Your task to perform on an android device: Play the last video I watched on Youtube Image 0: 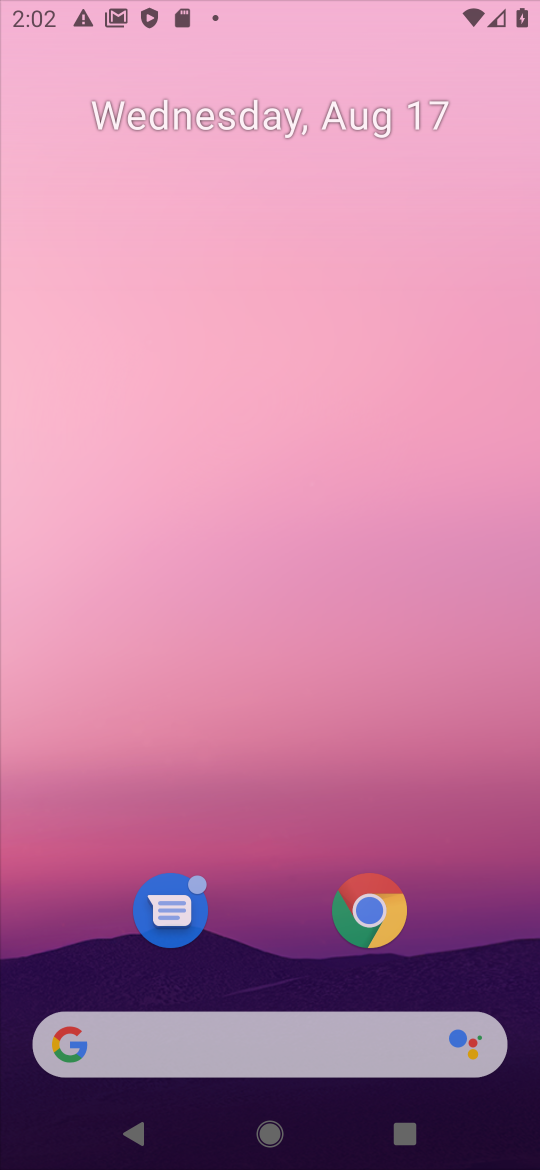
Step 0: press home button
Your task to perform on an android device: Play the last video I watched on Youtube Image 1: 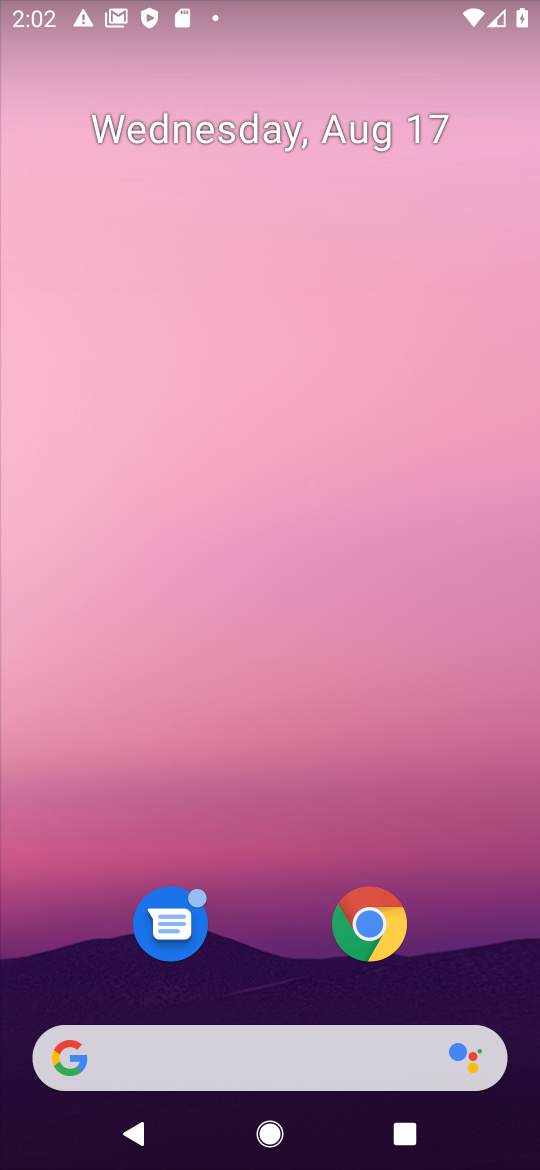
Step 1: drag from (277, 976) to (188, 120)
Your task to perform on an android device: Play the last video I watched on Youtube Image 2: 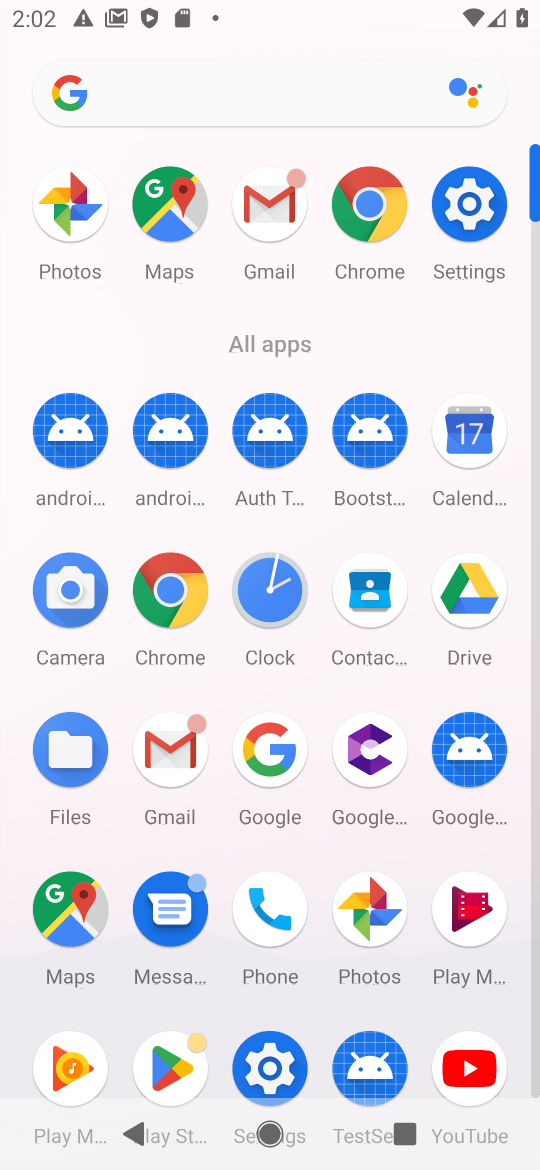
Step 2: click (466, 1065)
Your task to perform on an android device: Play the last video I watched on Youtube Image 3: 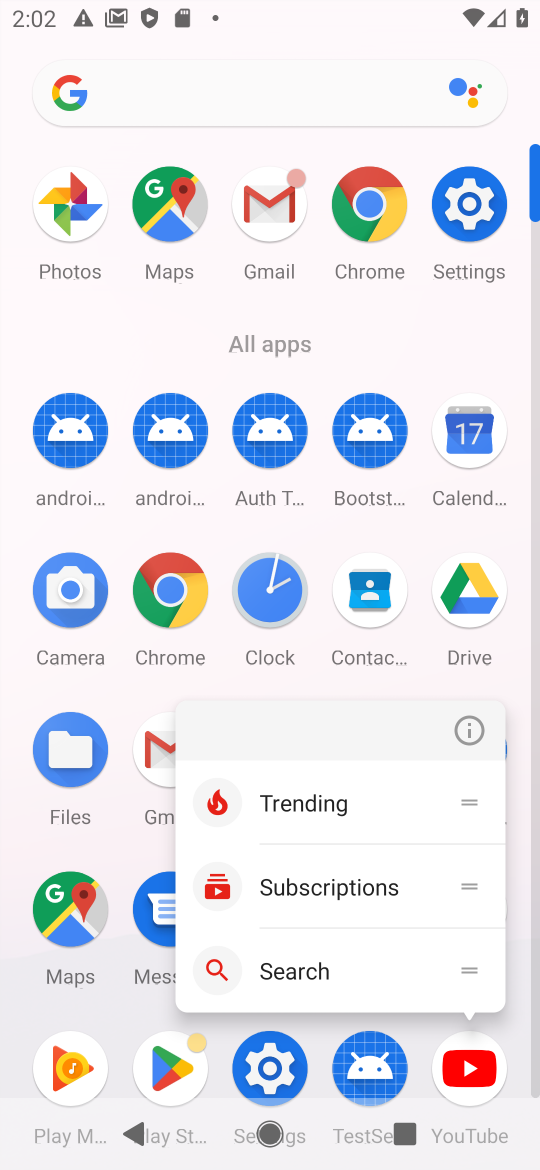
Step 3: click (463, 1075)
Your task to perform on an android device: Play the last video I watched on Youtube Image 4: 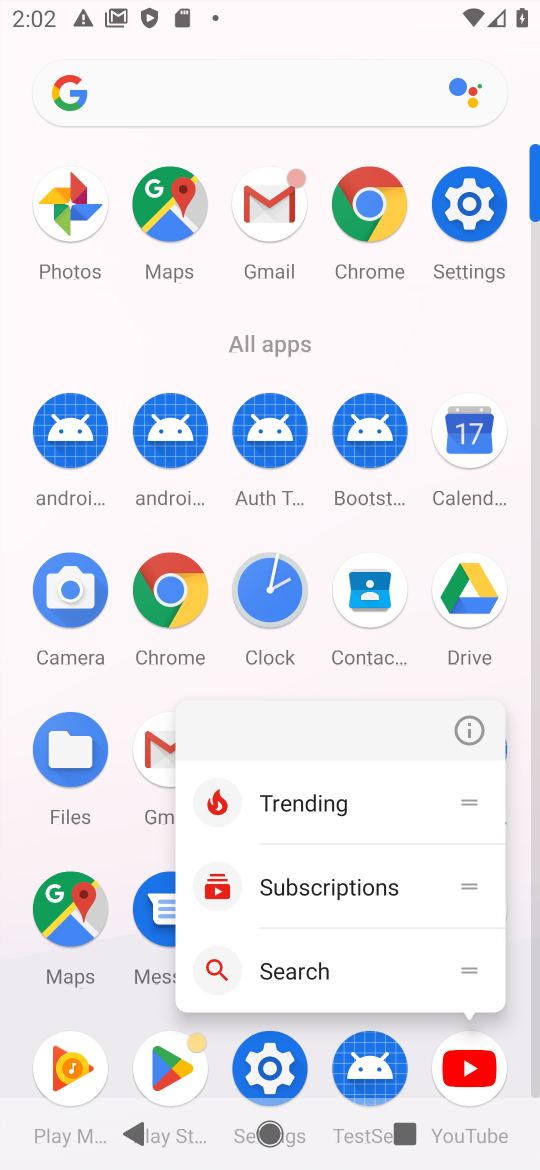
Step 4: click (479, 1063)
Your task to perform on an android device: Play the last video I watched on Youtube Image 5: 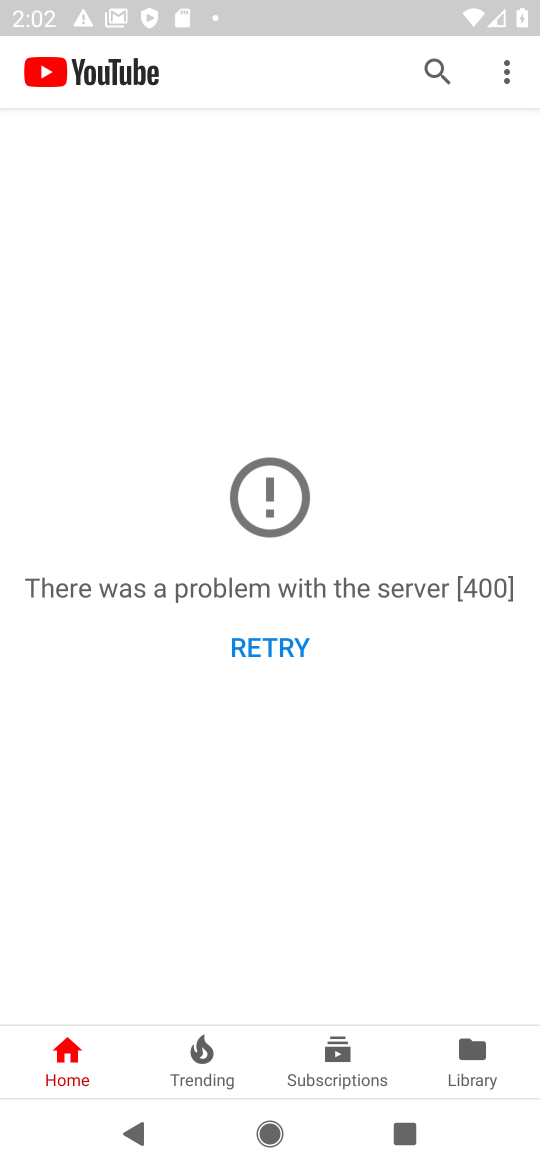
Step 5: click (480, 1059)
Your task to perform on an android device: Play the last video I watched on Youtube Image 6: 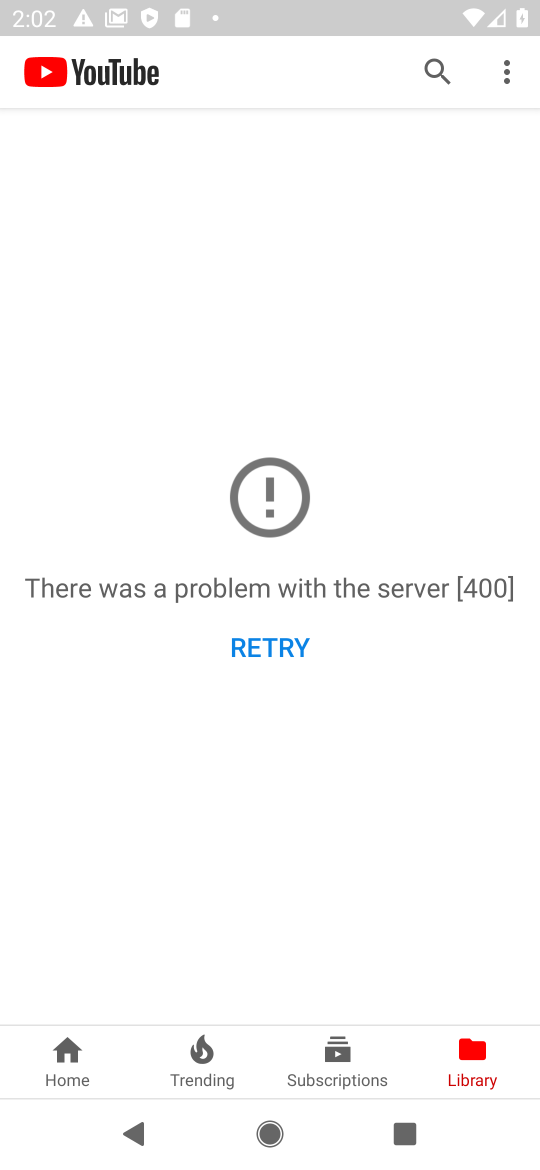
Step 6: click (440, 1055)
Your task to perform on an android device: Play the last video I watched on Youtube Image 7: 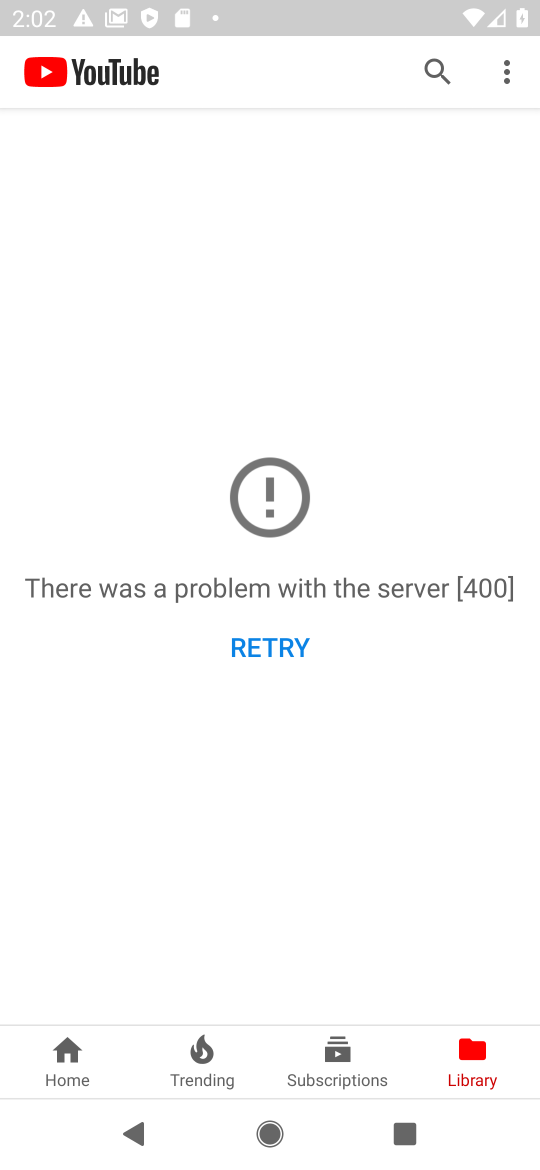
Step 7: click (275, 649)
Your task to perform on an android device: Play the last video I watched on Youtube Image 8: 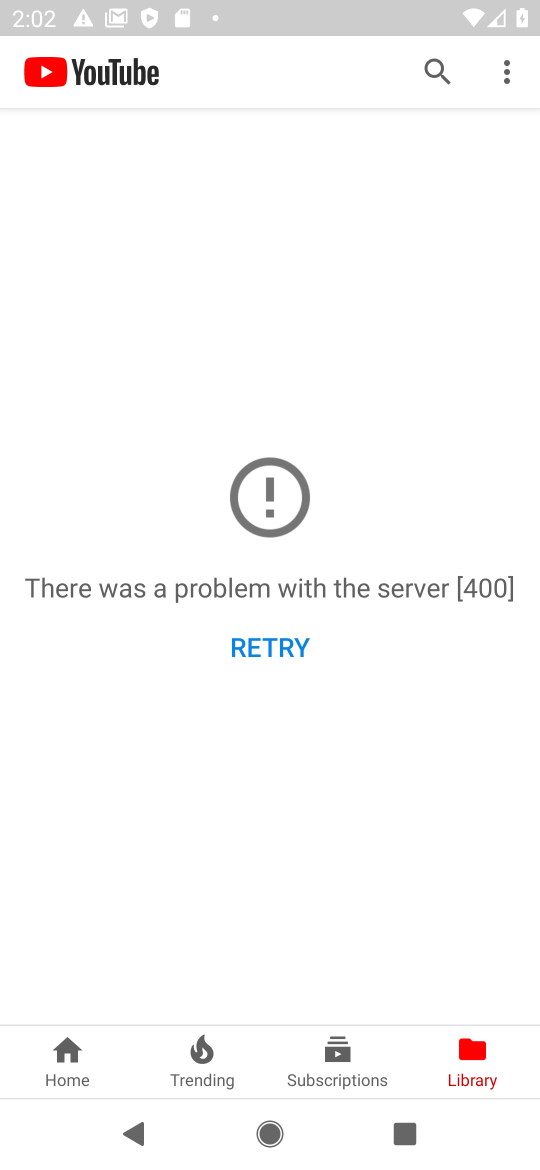
Step 8: click (276, 646)
Your task to perform on an android device: Play the last video I watched on Youtube Image 9: 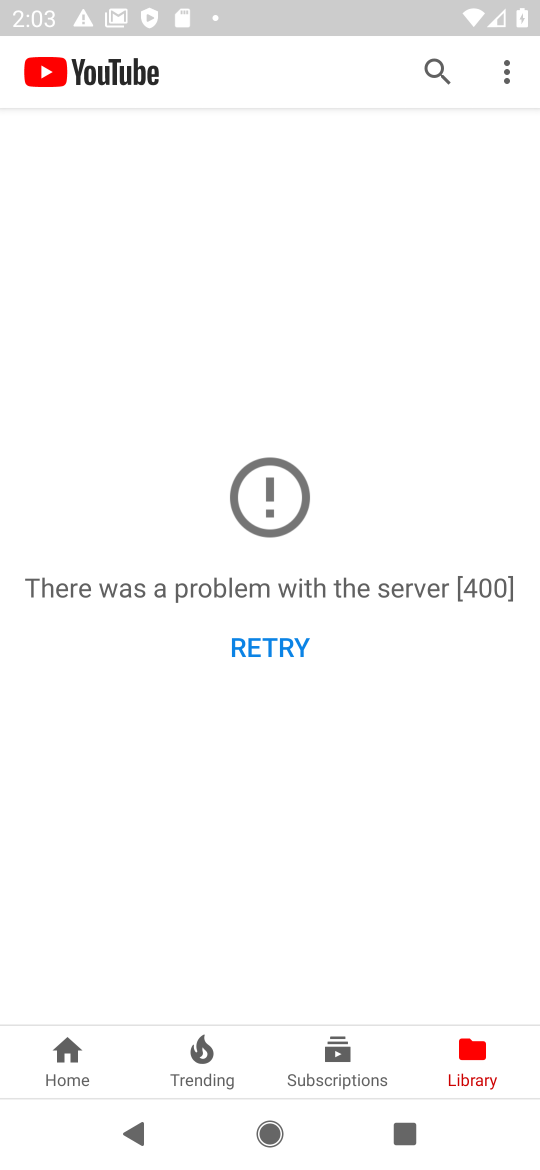
Step 9: task complete